Your task to perform on an android device: empty trash in the gmail app Image 0: 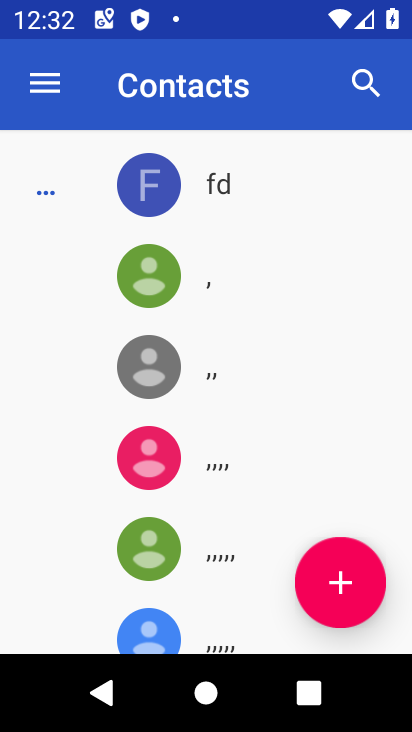
Step 0: press home button
Your task to perform on an android device: empty trash in the gmail app Image 1: 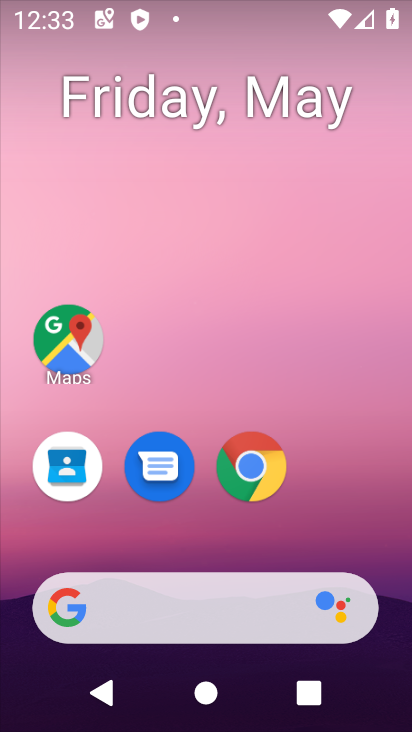
Step 1: drag from (189, 545) to (315, 2)
Your task to perform on an android device: empty trash in the gmail app Image 2: 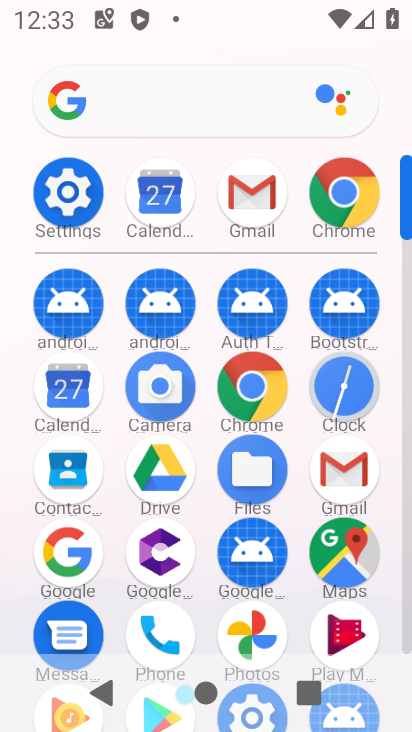
Step 2: click (250, 209)
Your task to perform on an android device: empty trash in the gmail app Image 3: 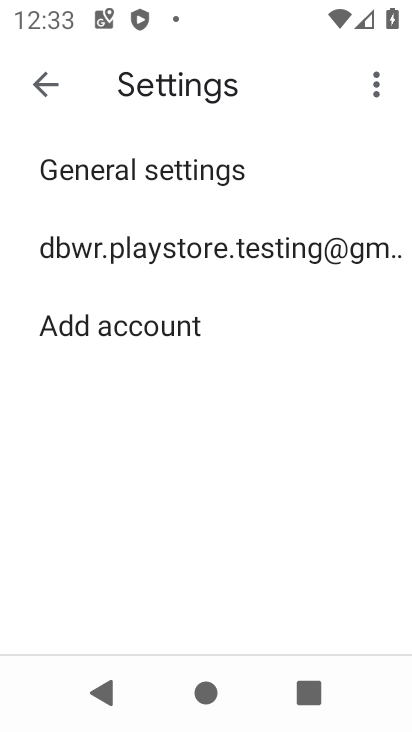
Step 3: click (39, 89)
Your task to perform on an android device: empty trash in the gmail app Image 4: 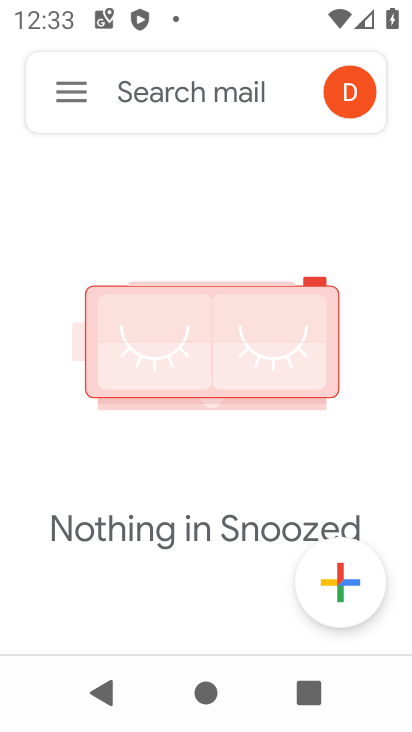
Step 4: click (51, 97)
Your task to perform on an android device: empty trash in the gmail app Image 5: 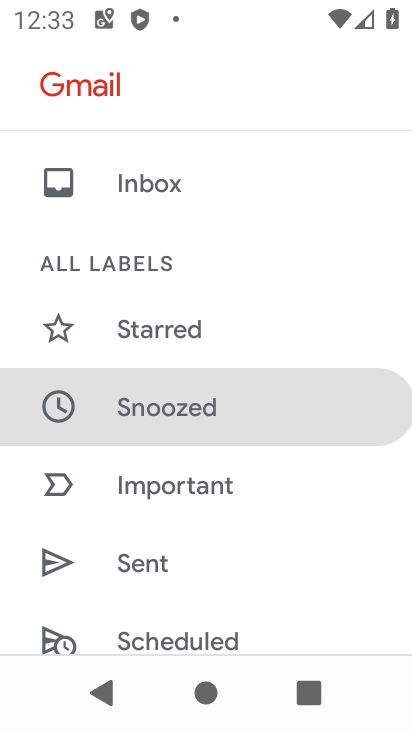
Step 5: click (71, 109)
Your task to perform on an android device: empty trash in the gmail app Image 6: 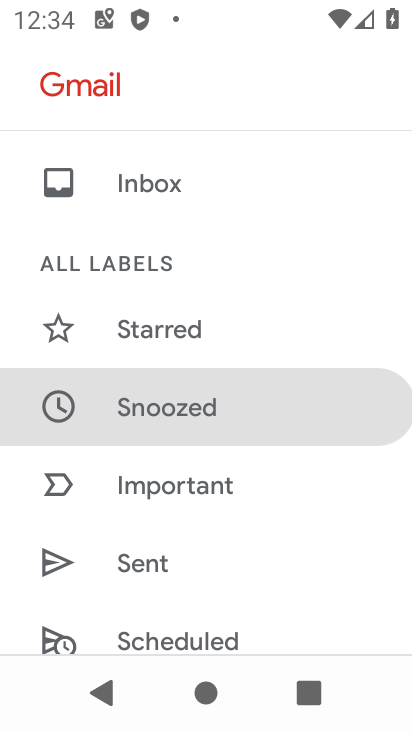
Step 6: drag from (178, 554) to (356, 114)
Your task to perform on an android device: empty trash in the gmail app Image 7: 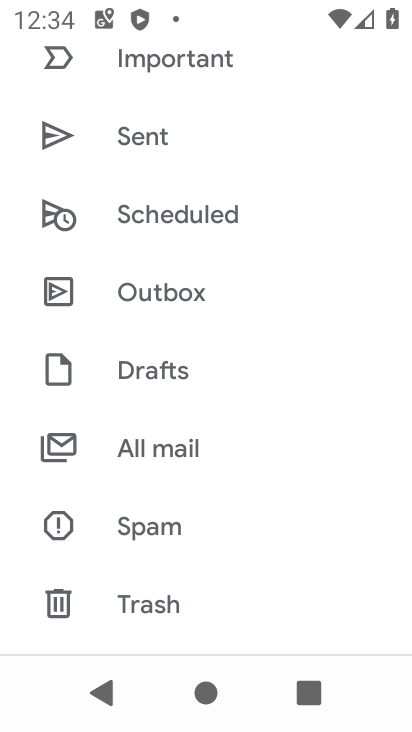
Step 7: click (122, 601)
Your task to perform on an android device: empty trash in the gmail app Image 8: 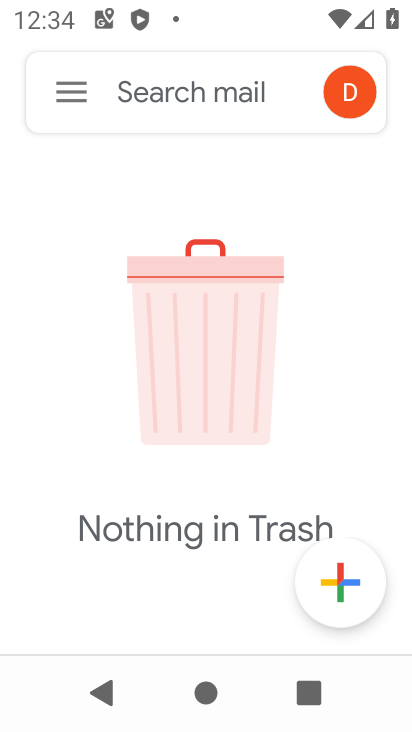
Step 8: task complete